Your task to perform on an android device: turn off data saver in the chrome app Image 0: 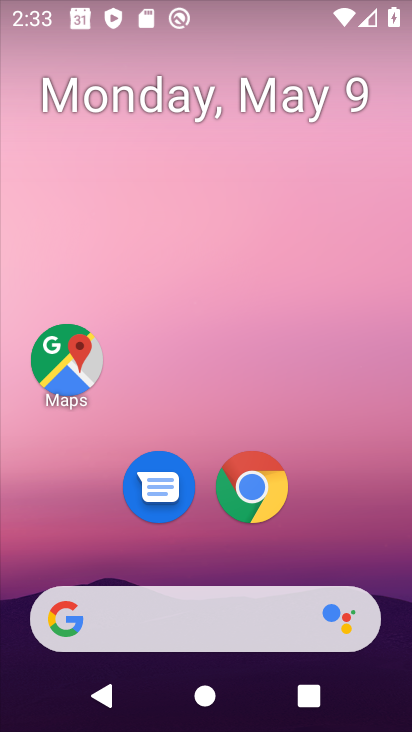
Step 0: click (238, 479)
Your task to perform on an android device: turn off data saver in the chrome app Image 1: 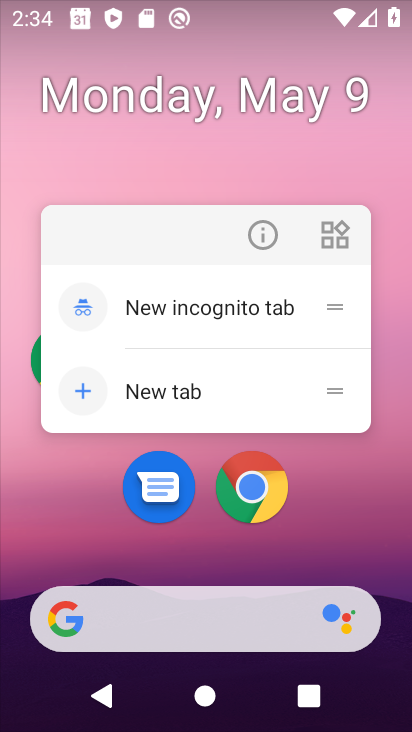
Step 1: click (238, 479)
Your task to perform on an android device: turn off data saver in the chrome app Image 2: 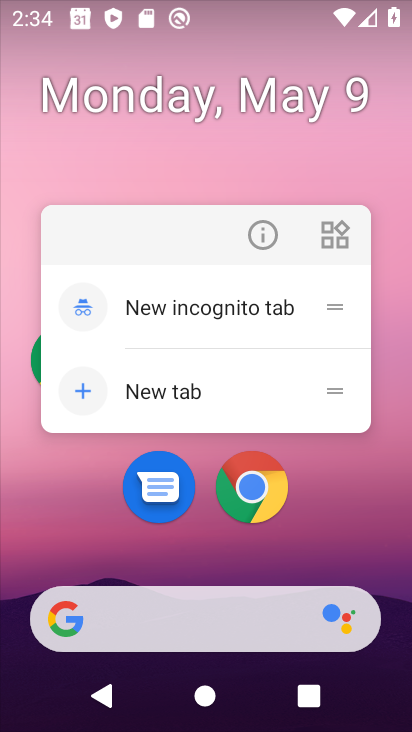
Step 2: click (238, 481)
Your task to perform on an android device: turn off data saver in the chrome app Image 3: 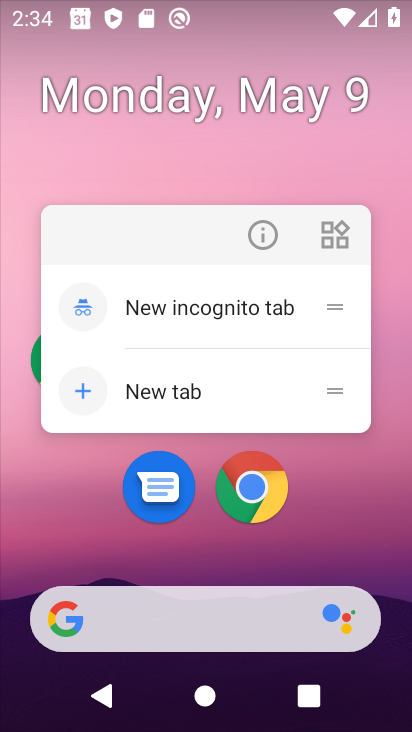
Step 3: click (238, 481)
Your task to perform on an android device: turn off data saver in the chrome app Image 4: 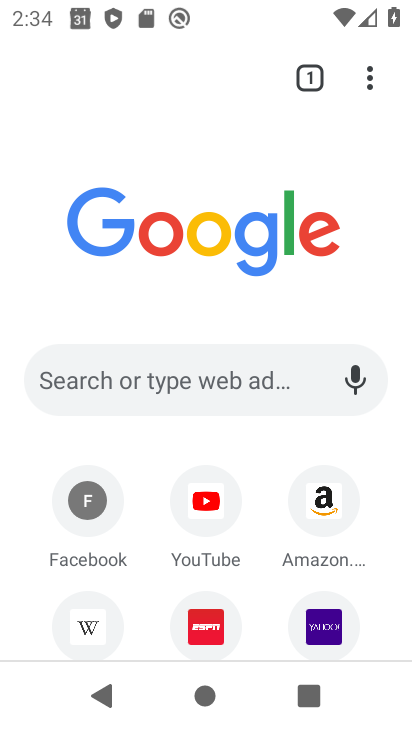
Step 4: click (368, 71)
Your task to perform on an android device: turn off data saver in the chrome app Image 5: 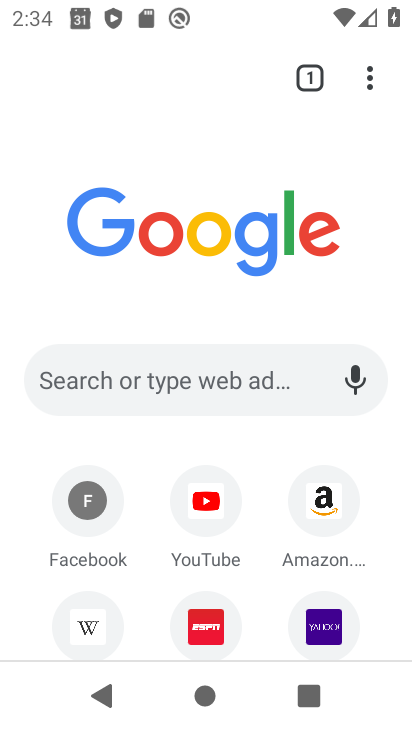
Step 5: click (368, 78)
Your task to perform on an android device: turn off data saver in the chrome app Image 6: 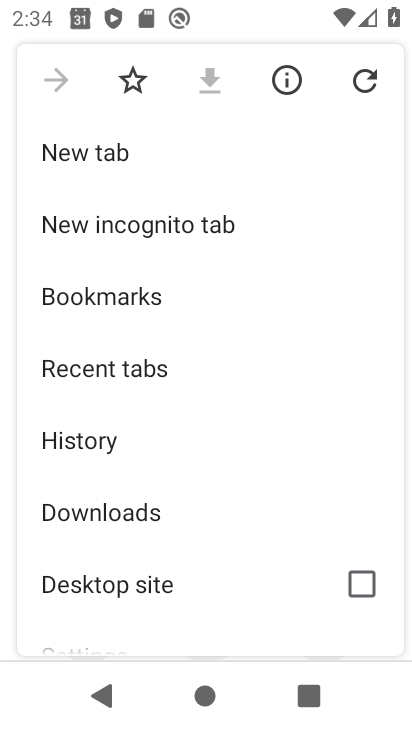
Step 6: drag from (217, 566) to (234, 286)
Your task to perform on an android device: turn off data saver in the chrome app Image 7: 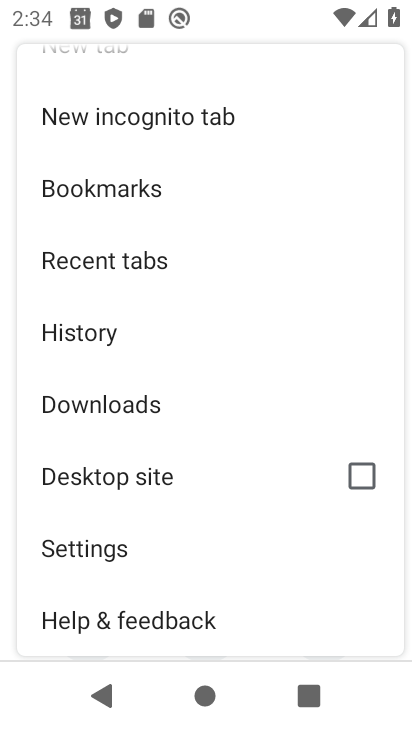
Step 7: click (145, 536)
Your task to perform on an android device: turn off data saver in the chrome app Image 8: 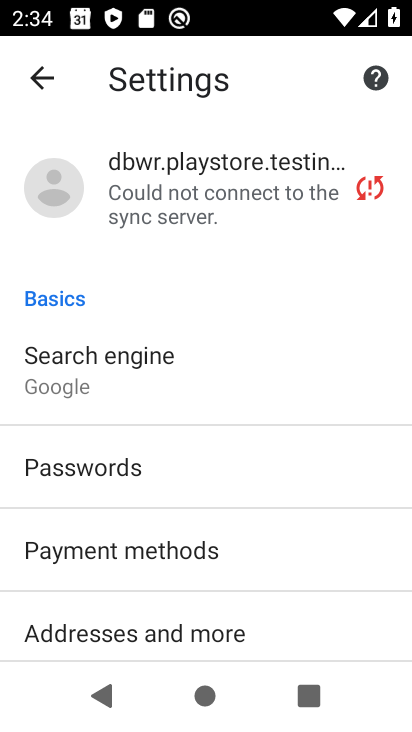
Step 8: drag from (221, 640) to (236, 478)
Your task to perform on an android device: turn off data saver in the chrome app Image 9: 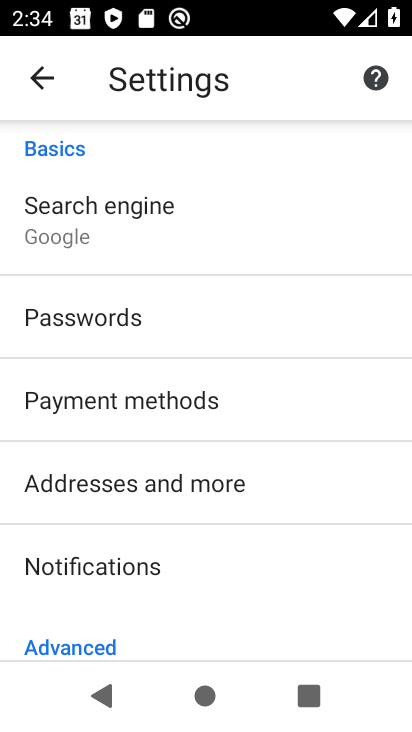
Step 9: drag from (231, 631) to (240, 504)
Your task to perform on an android device: turn off data saver in the chrome app Image 10: 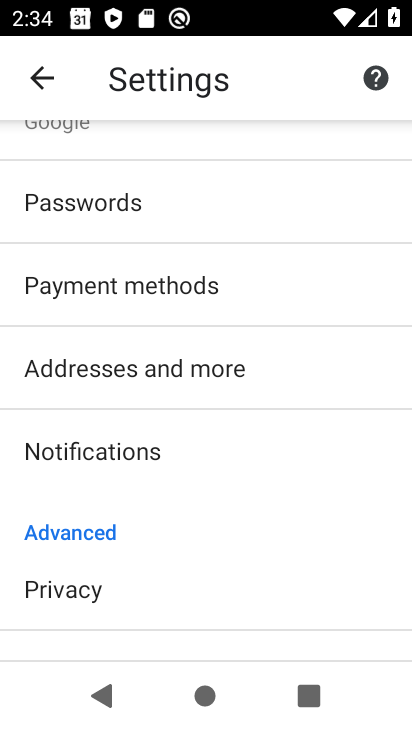
Step 10: drag from (231, 523) to (261, 442)
Your task to perform on an android device: turn off data saver in the chrome app Image 11: 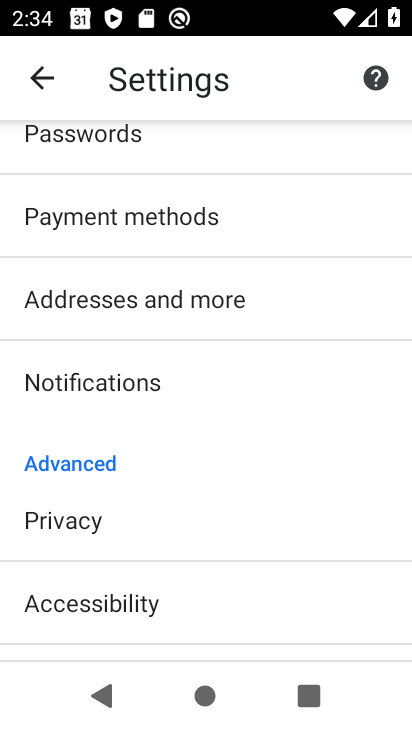
Step 11: drag from (255, 586) to (273, 454)
Your task to perform on an android device: turn off data saver in the chrome app Image 12: 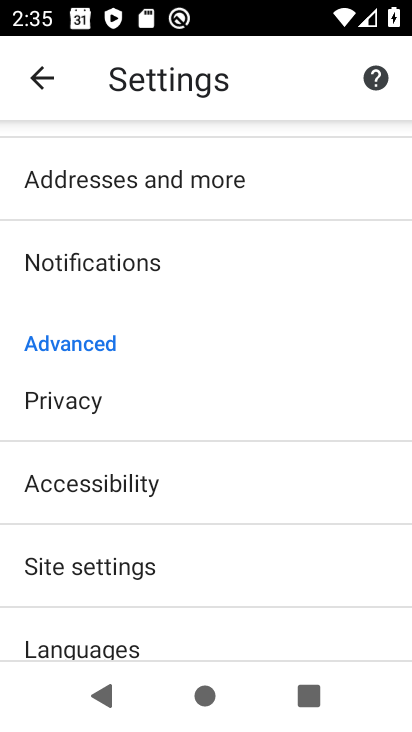
Step 12: drag from (200, 631) to (232, 467)
Your task to perform on an android device: turn off data saver in the chrome app Image 13: 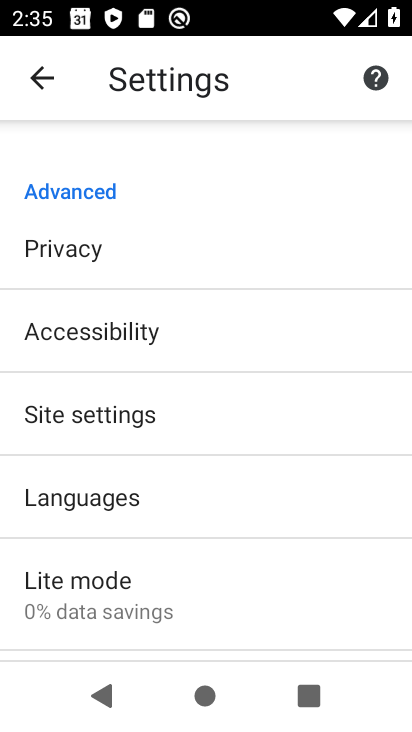
Step 13: click (189, 594)
Your task to perform on an android device: turn off data saver in the chrome app Image 14: 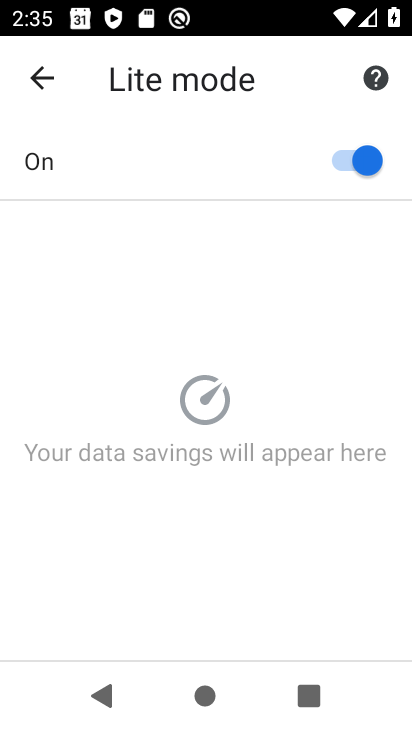
Step 14: click (338, 148)
Your task to perform on an android device: turn off data saver in the chrome app Image 15: 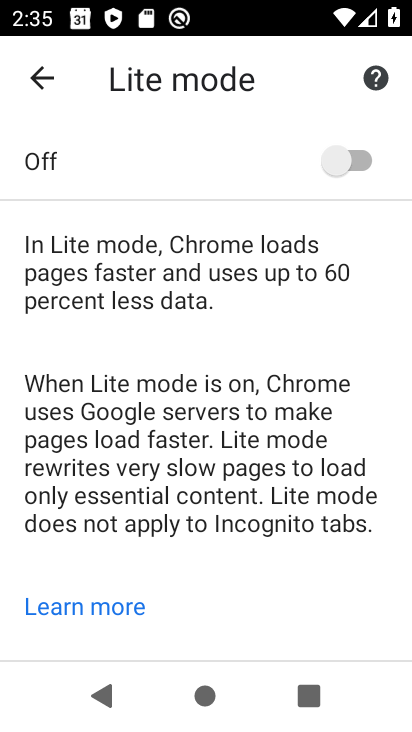
Step 15: task complete